Your task to perform on an android device: check data usage Image 0: 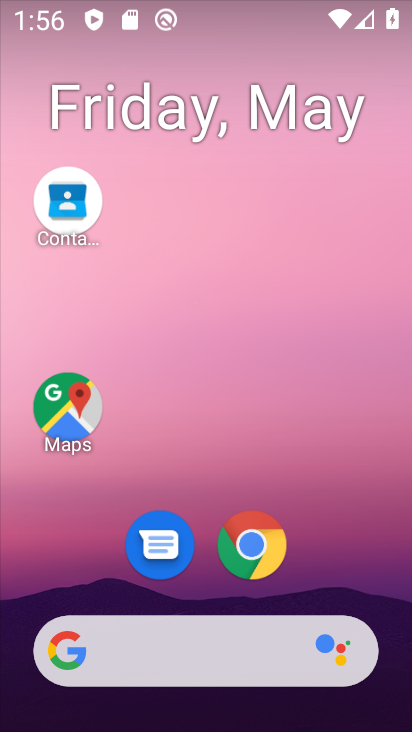
Step 0: drag from (69, 205) to (64, 281)
Your task to perform on an android device: check data usage Image 1: 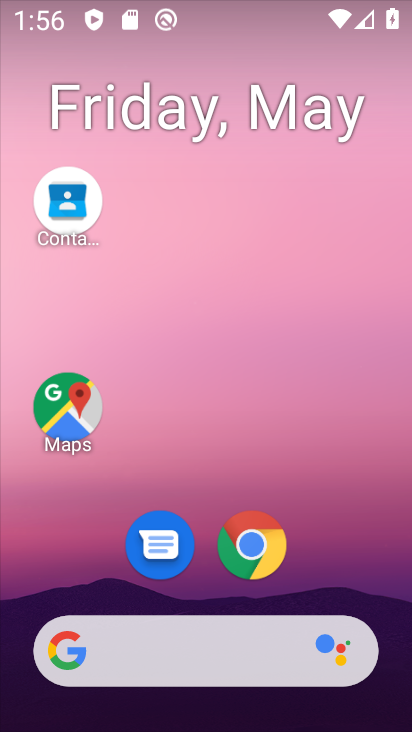
Step 1: drag from (58, 206) to (86, 319)
Your task to perform on an android device: check data usage Image 2: 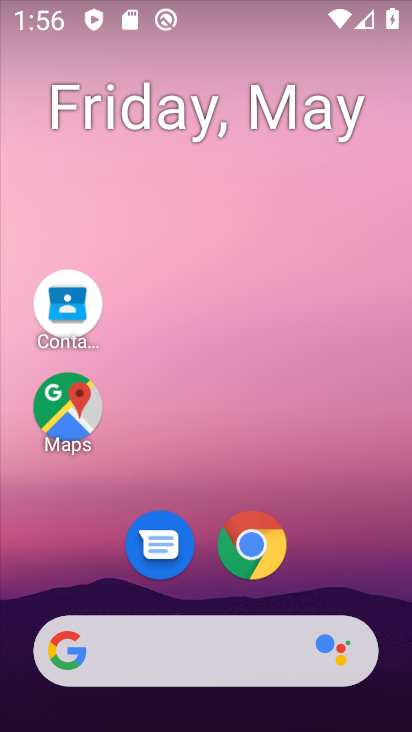
Step 2: drag from (334, 497) to (282, 130)
Your task to perform on an android device: check data usage Image 3: 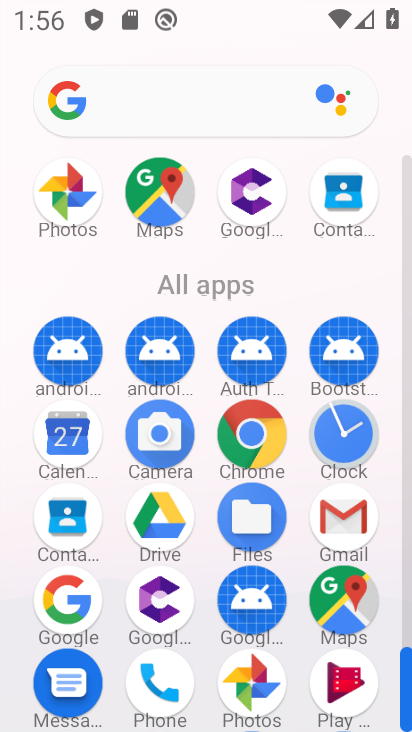
Step 3: drag from (200, 267) to (193, 116)
Your task to perform on an android device: check data usage Image 4: 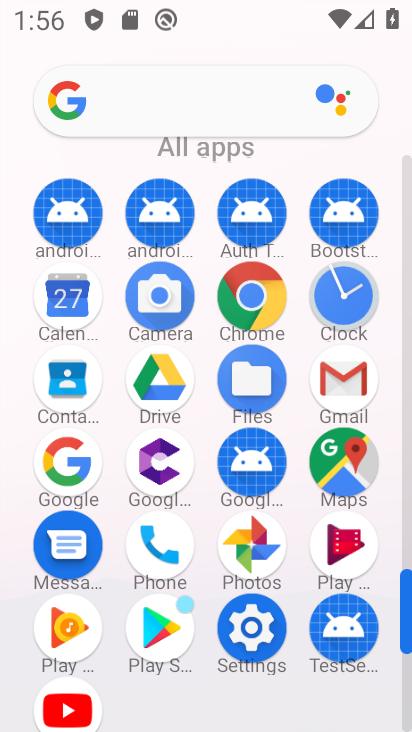
Step 4: drag from (242, 621) to (101, 218)
Your task to perform on an android device: check data usage Image 5: 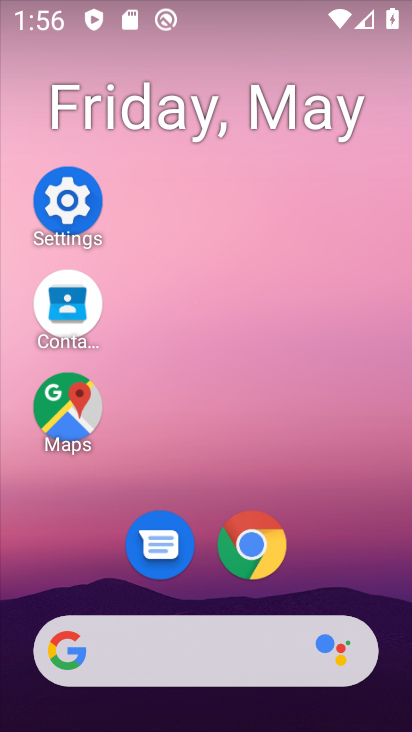
Step 5: click (99, 213)
Your task to perform on an android device: check data usage Image 6: 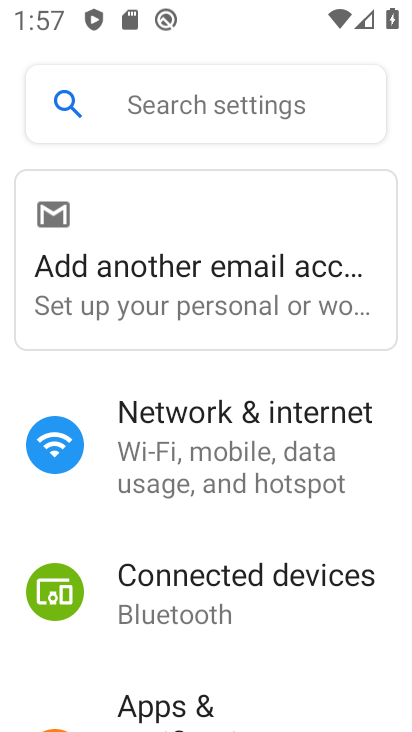
Step 6: click (224, 461)
Your task to perform on an android device: check data usage Image 7: 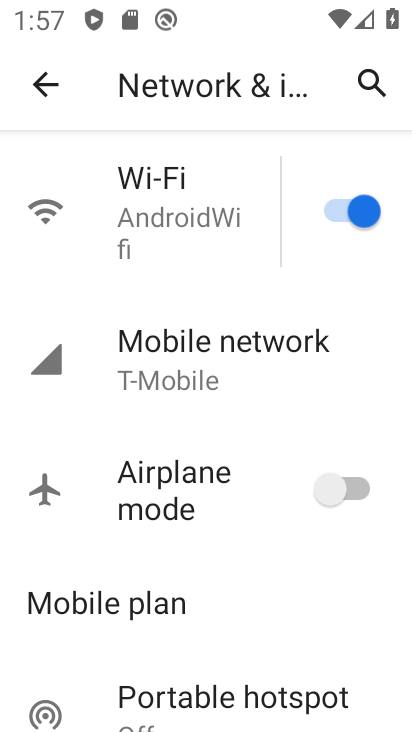
Step 7: click (217, 368)
Your task to perform on an android device: check data usage Image 8: 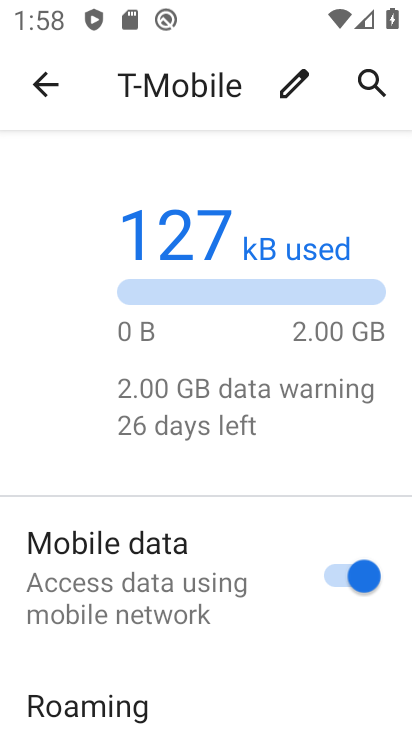
Step 8: task complete